Your task to perform on an android device: Turn off the flashlight Image 0: 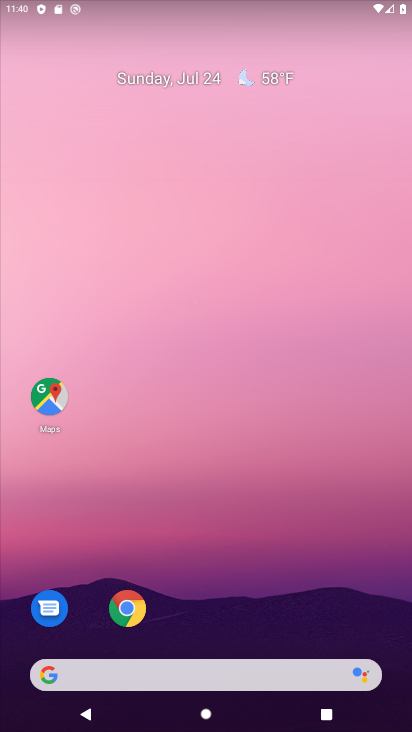
Step 0: drag from (265, 15) to (266, 471)
Your task to perform on an android device: Turn off the flashlight Image 1: 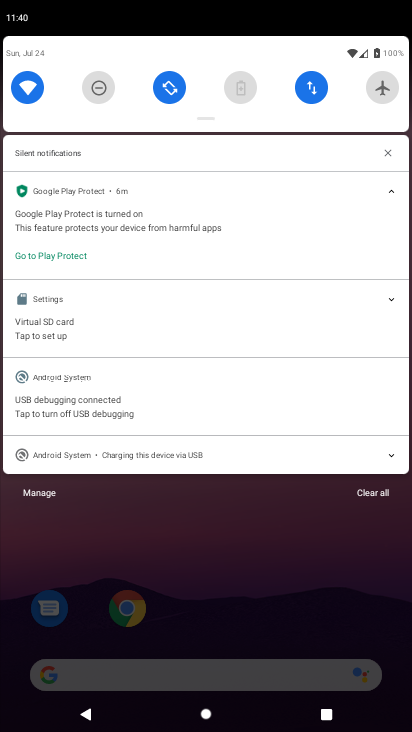
Step 1: task complete